Your task to perform on an android device: Go to calendar. Show me events next week Image 0: 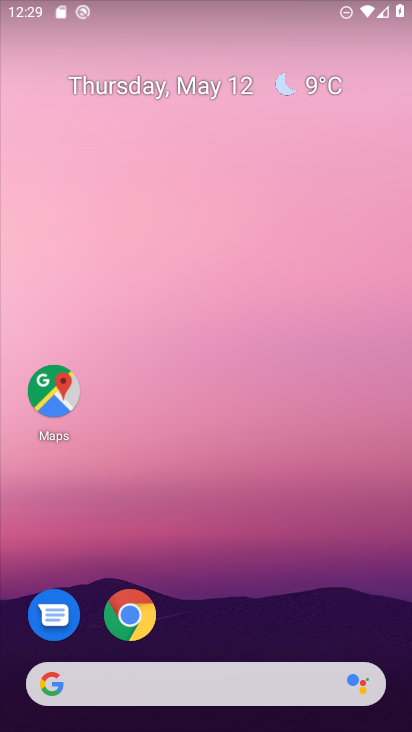
Step 0: drag from (243, 544) to (286, 33)
Your task to perform on an android device: Go to calendar. Show me events next week Image 1: 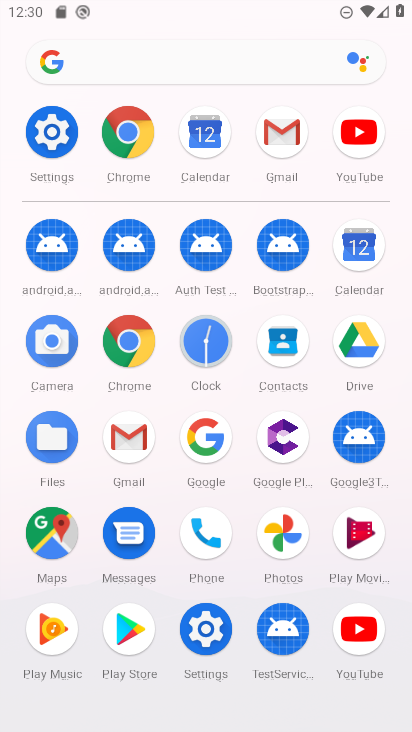
Step 1: click (352, 244)
Your task to perform on an android device: Go to calendar. Show me events next week Image 2: 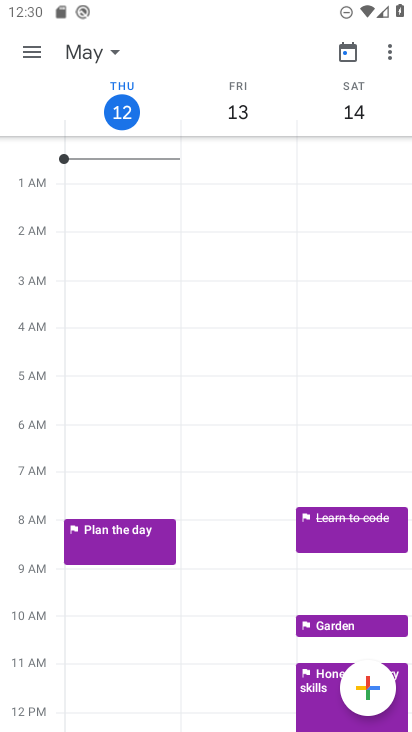
Step 2: click (80, 53)
Your task to perform on an android device: Go to calendar. Show me events next week Image 3: 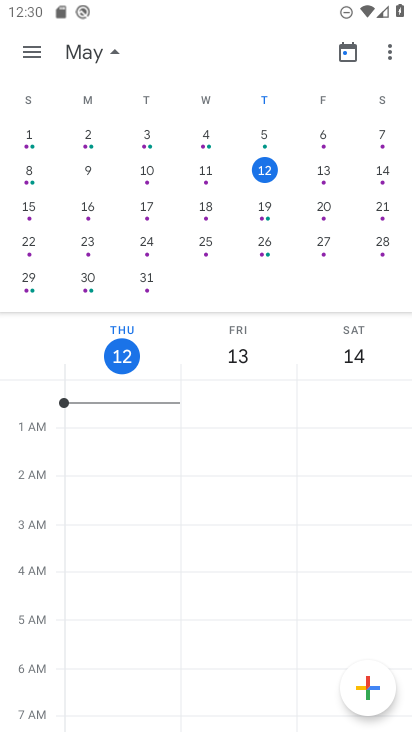
Step 3: click (260, 198)
Your task to perform on an android device: Go to calendar. Show me events next week Image 4: 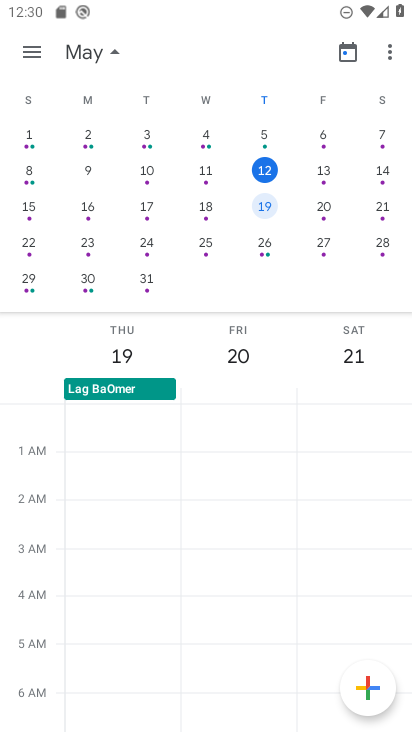
Step 4: task complete